Your task to perform on an android device: install app "YouTube Kids" Image 0: 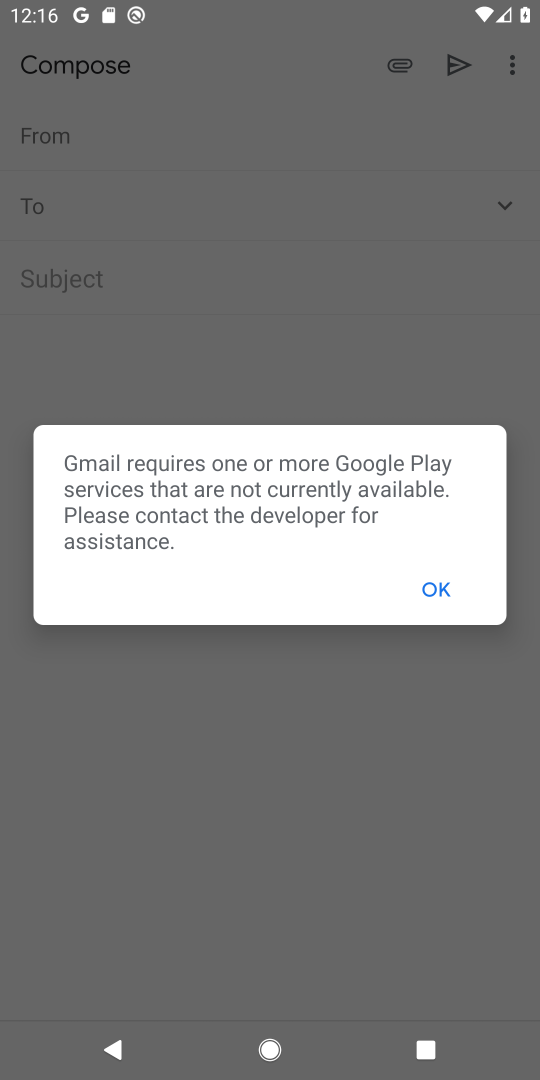
Step 0: press home button
Your task to perform on an android device: install app "YouTube Kids" Image 1: 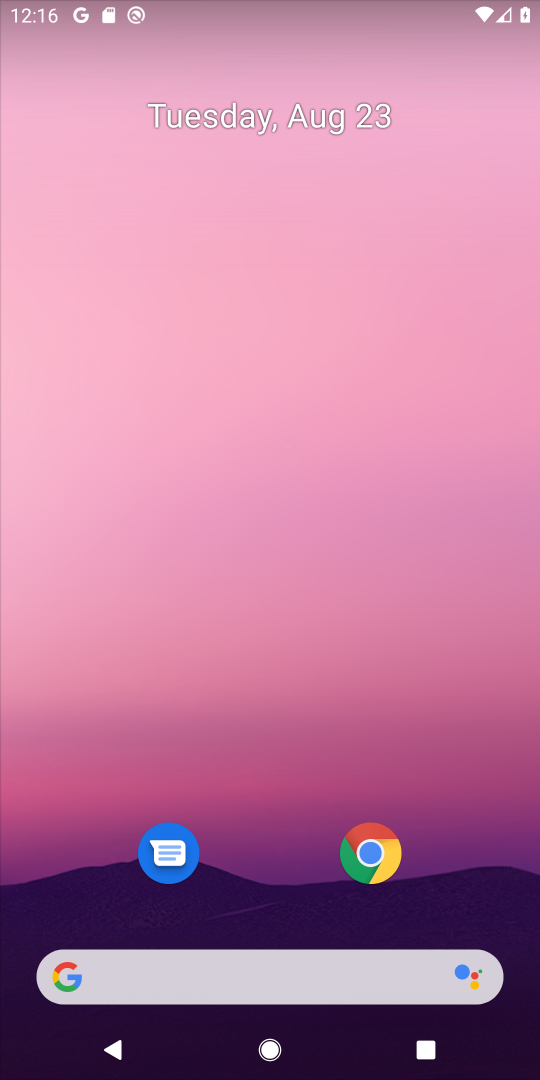
Step 1: drag from (479, 909) to (409, 283)
Your task to perform on an android device: install app "YouTube Kids" Image 2: 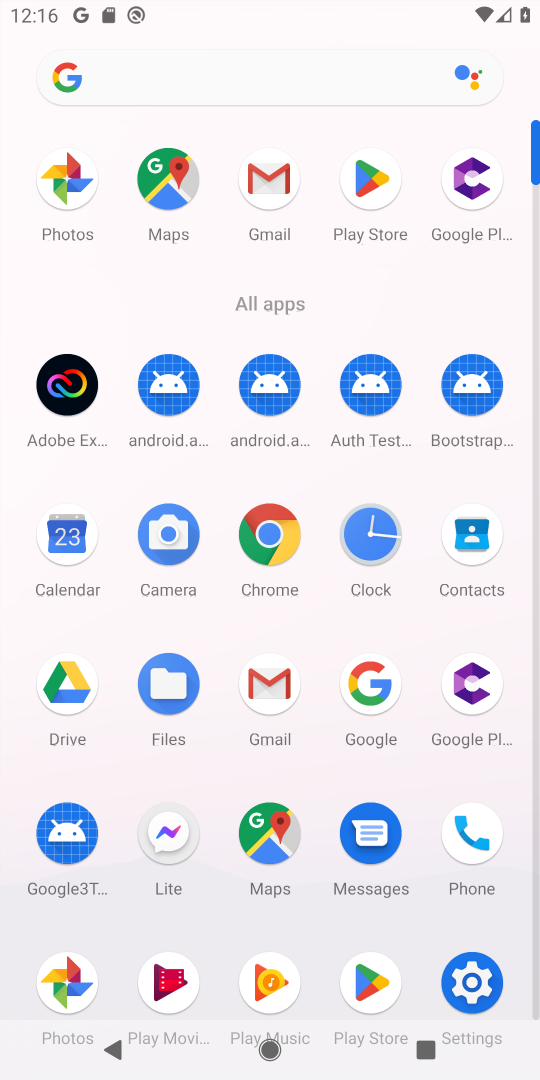
Step 2: drag from (316, 912) to (327, 536)
Your task to perform on an android device: install app "YouTube Kids" Image 3: 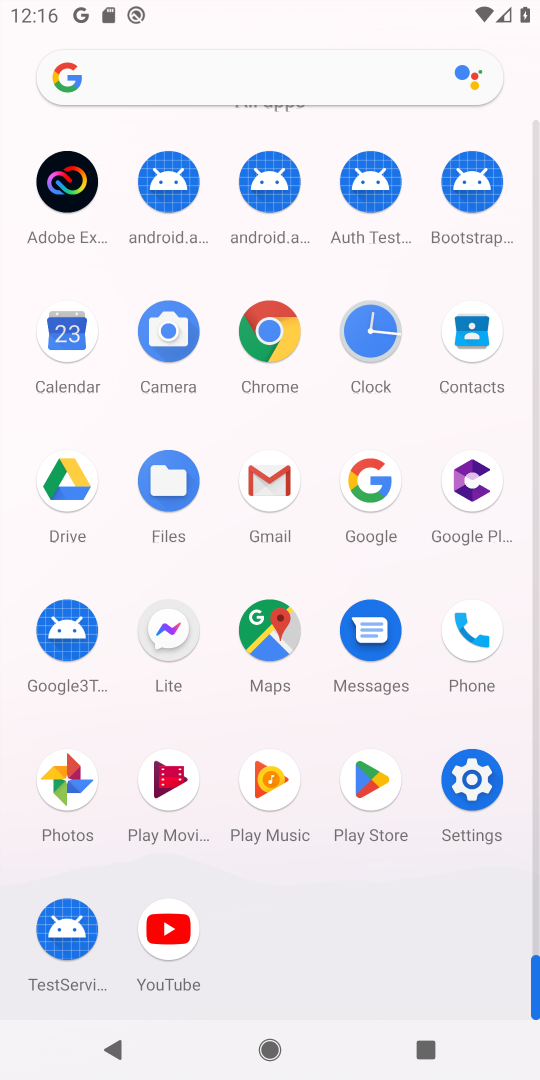
Step 3: click (369, 777)
Your task to perform on an android device: install app "YouTube Kids" Image 4: 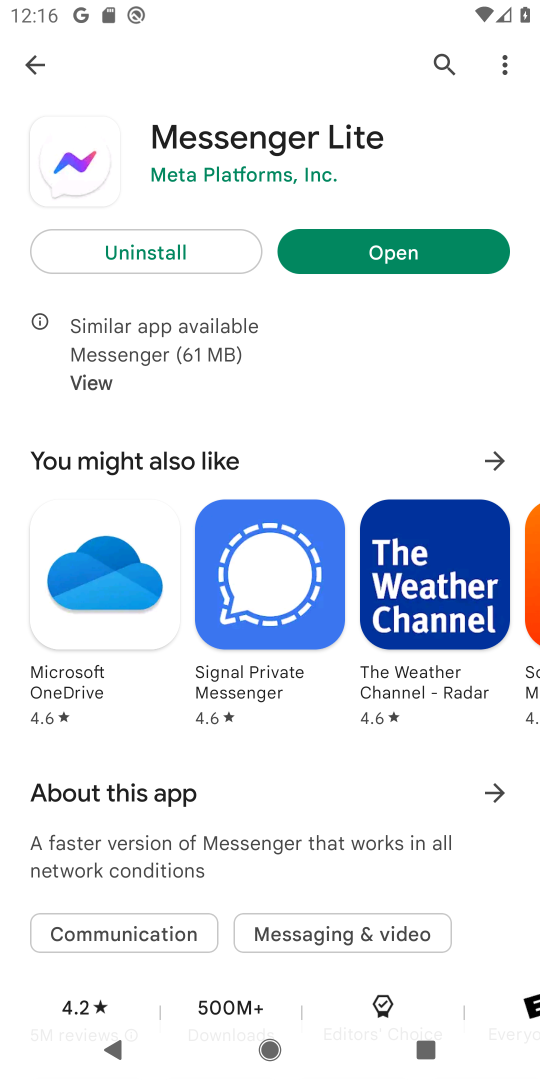
Step 4: click (440, 64)
Your task to perform on an android device: install app "YouTube Kids" Image 5: 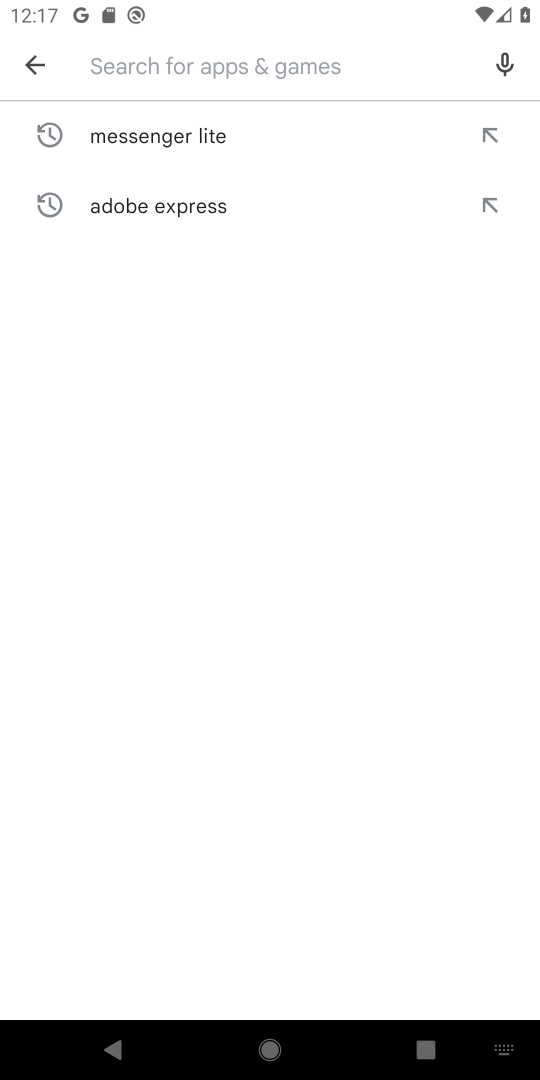
Step 5: type "YouTube Kids"
Your task to perform on an android device: install app "YouTube Kids" Image 6: 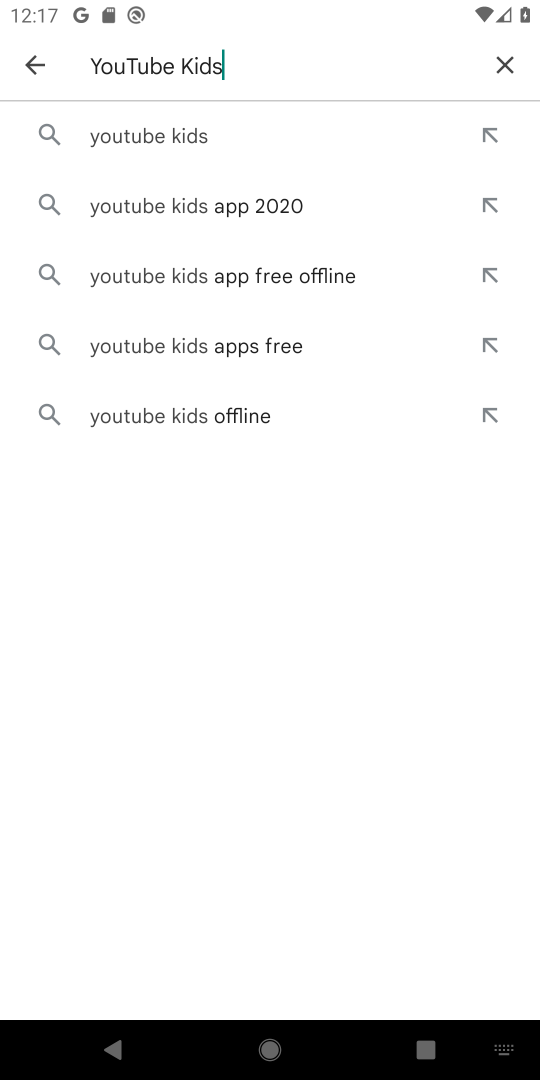
Step 6: click (143, 123)
Your task to perform on an android device: install app "YouTube Kids" Image 7: 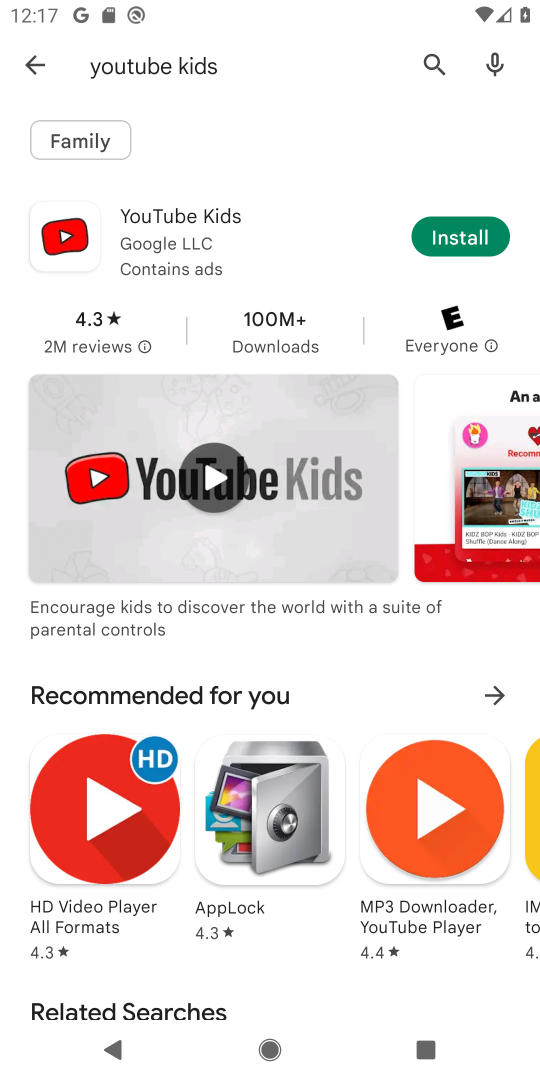
Step 7: click (446, 242)
Your task to perform on an android device: install app "YouTube Kids" Image 8: 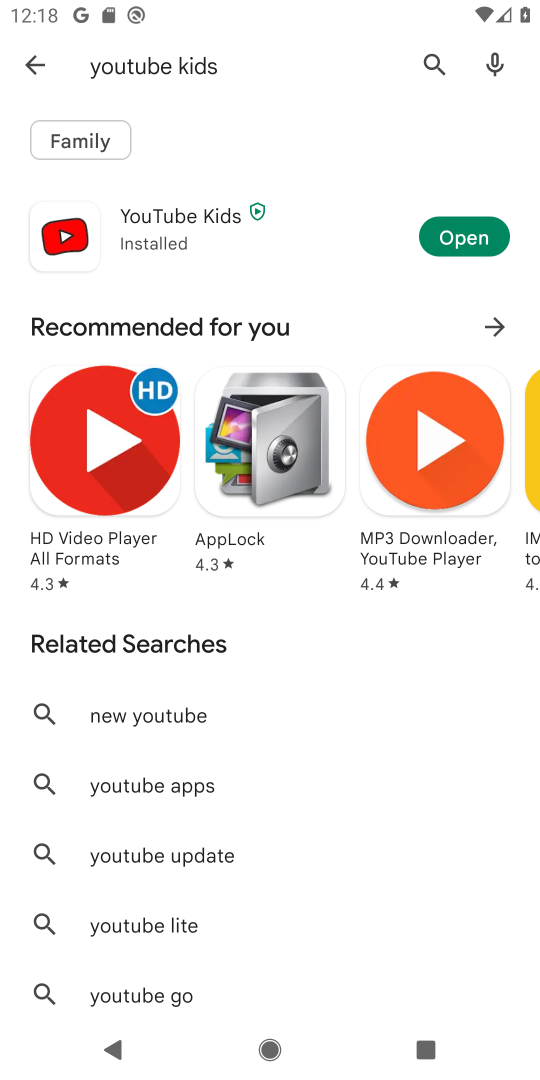
Step 8: task complete